Your task to perform on an android device: set default search engine in the chrome app Image 0: 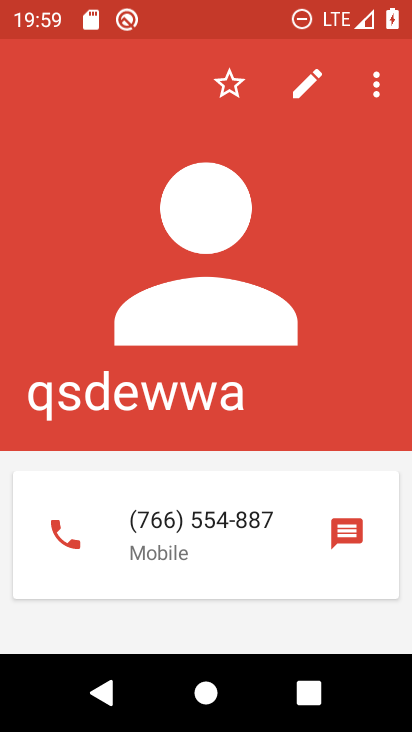
Step 0: press home button
Your task to perform on an android device: set default search engine in the chrome app Image 1: 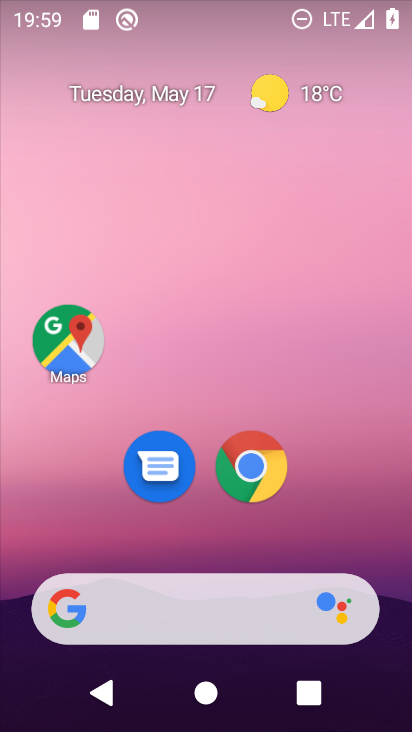
Step 1: click (250, 479)
Your task to perform on an android device: set default search engine in the chrome app Image 2: 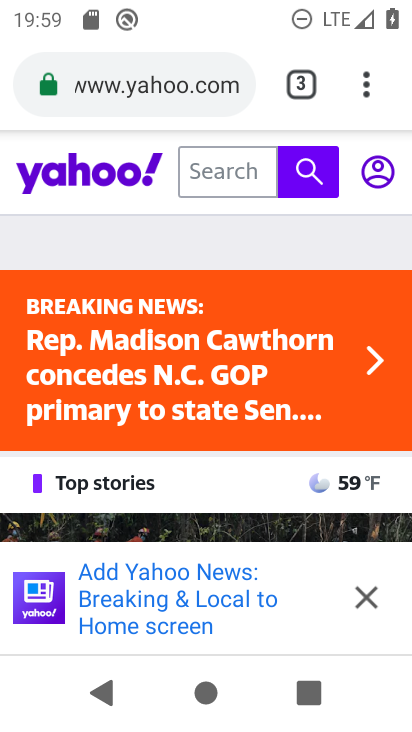
Step 2: drag from (364, 93) to (199, 530)
Your task to perform on an android device: set default search engine in the chrome app Image 3: 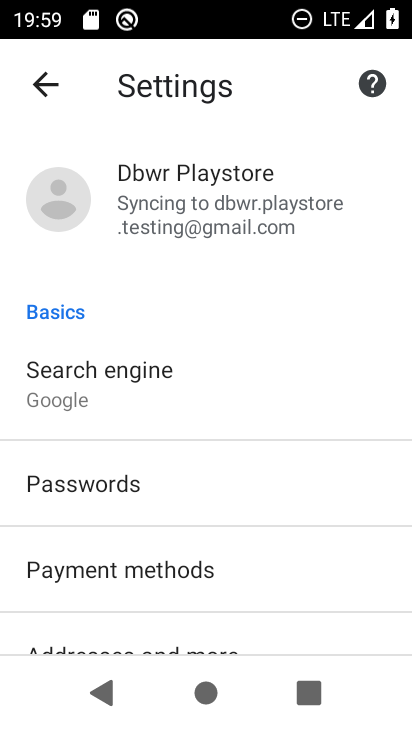
Step 3: click (95, 395)
Your task to perform on an android device: set default search engine in the chrome app Image 4: 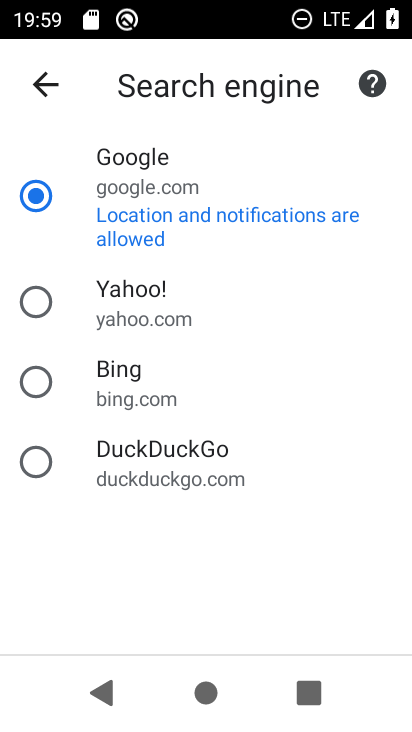
Step 4: click (41, 303)
Your task to perform on an android device: set default search engine in the chrome app Image 5: 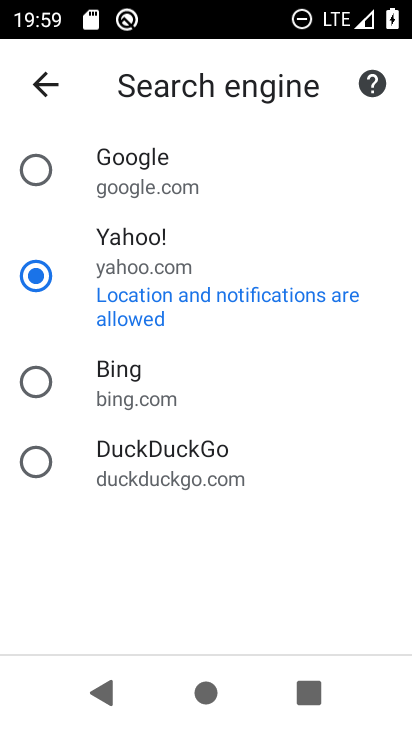
Step 5: task complete